Your task to perform on an android device: toggle data saver in the chrome app Image 0: 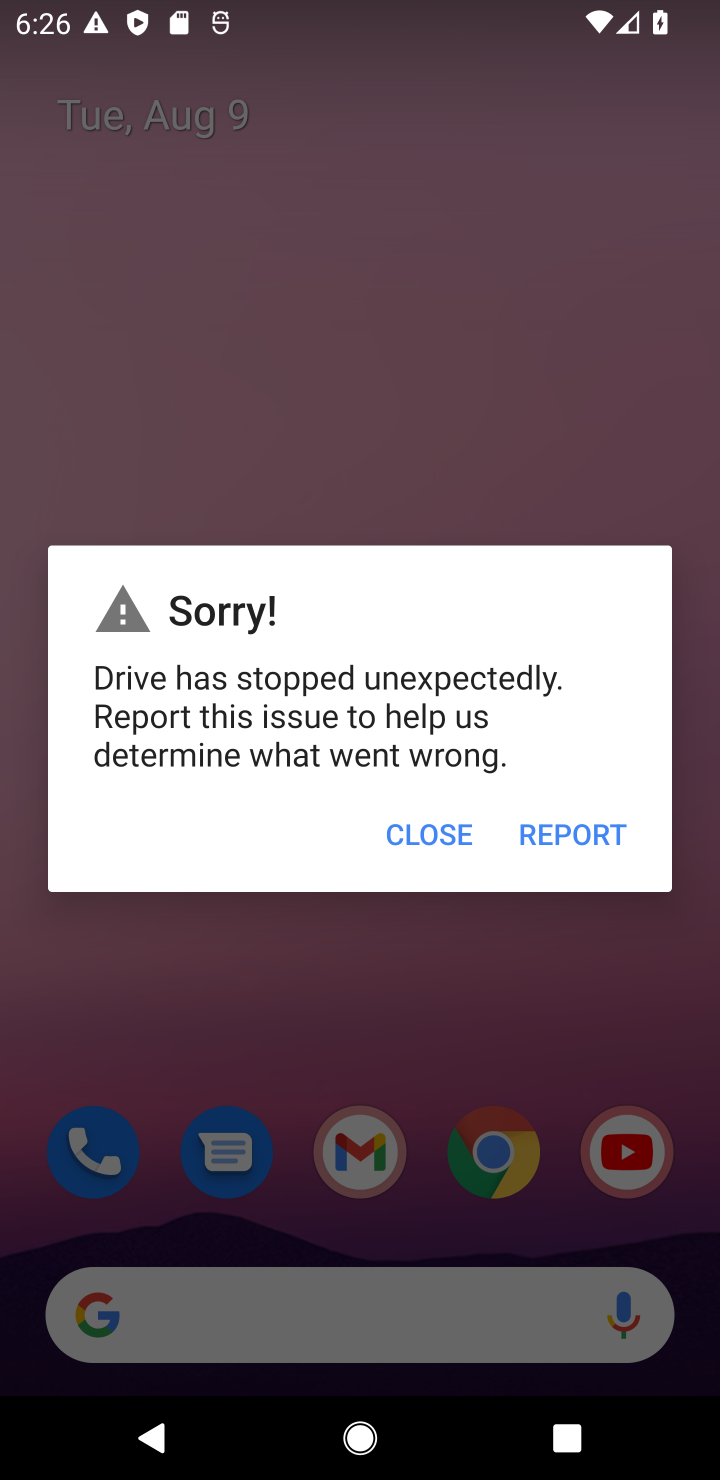
Step 0: click (435, 820)
Your task to perform on an android device: toggle data saver in the chrome app Image 1: 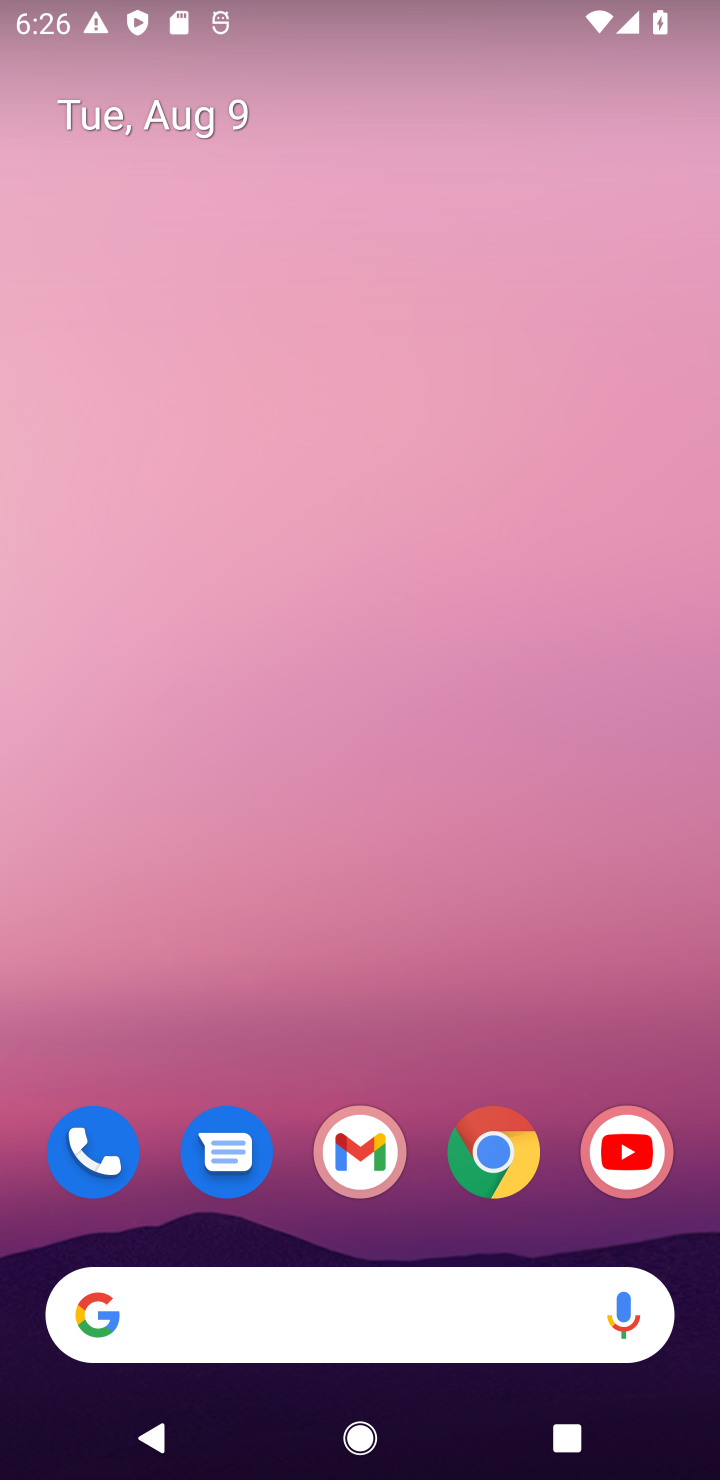
Step 1: click (501, 1140)
Your task to perform on an android device: toggle data saver in the chrome app Image 2: 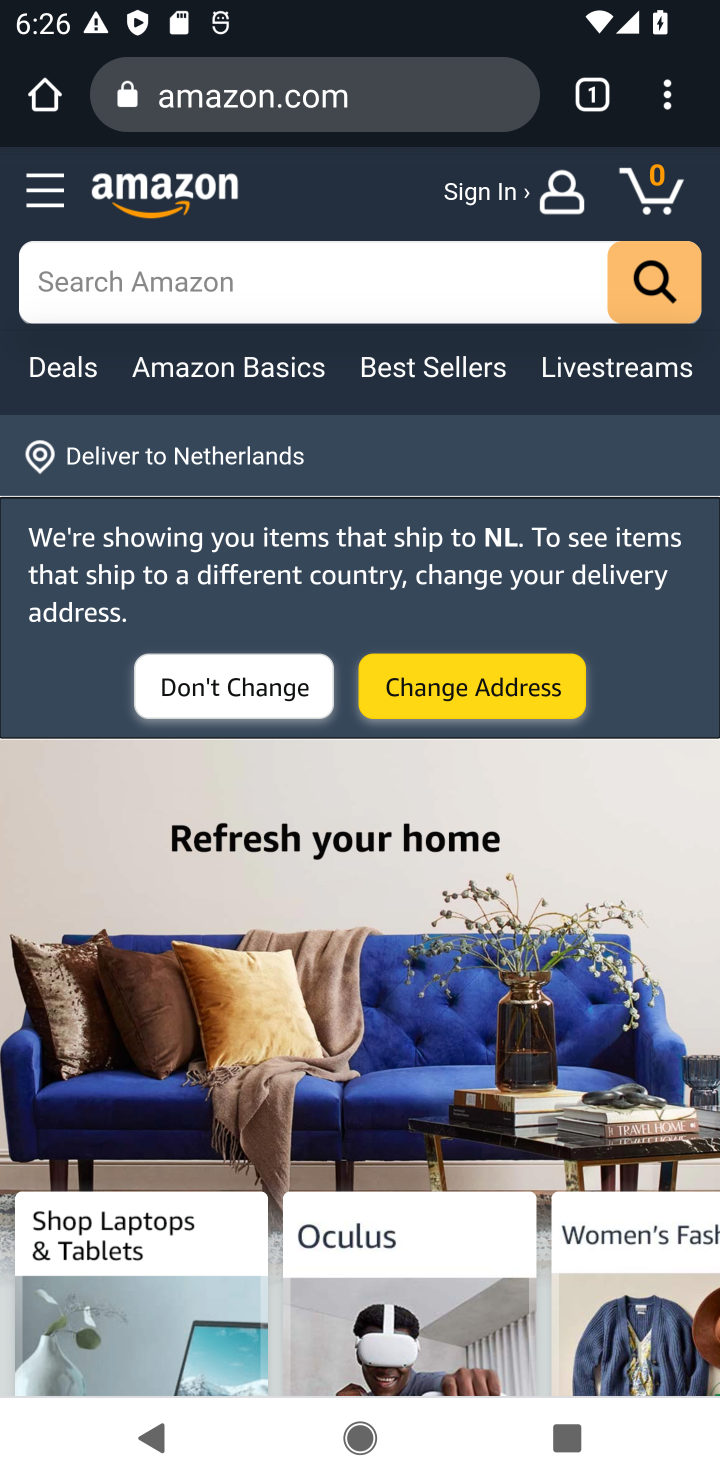
Step 2: drag from (679, 82) to (405, 1238)
Your task to perform on an android device: toggle data saver in the chrome app Image 3: 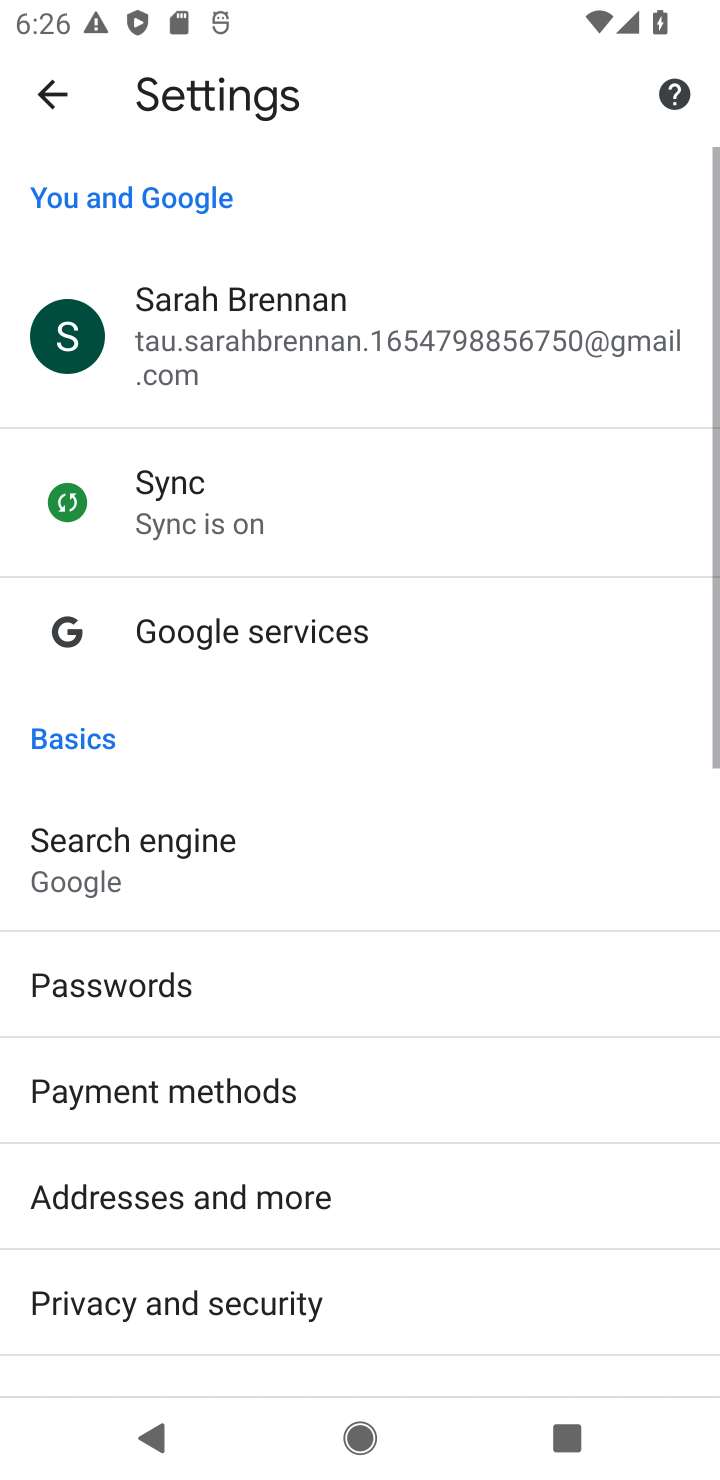
Step 3: drag from (327, 1250) to (648, 50)
Your task to perform on an android device: toggle data saver in the chrome app Image 4: 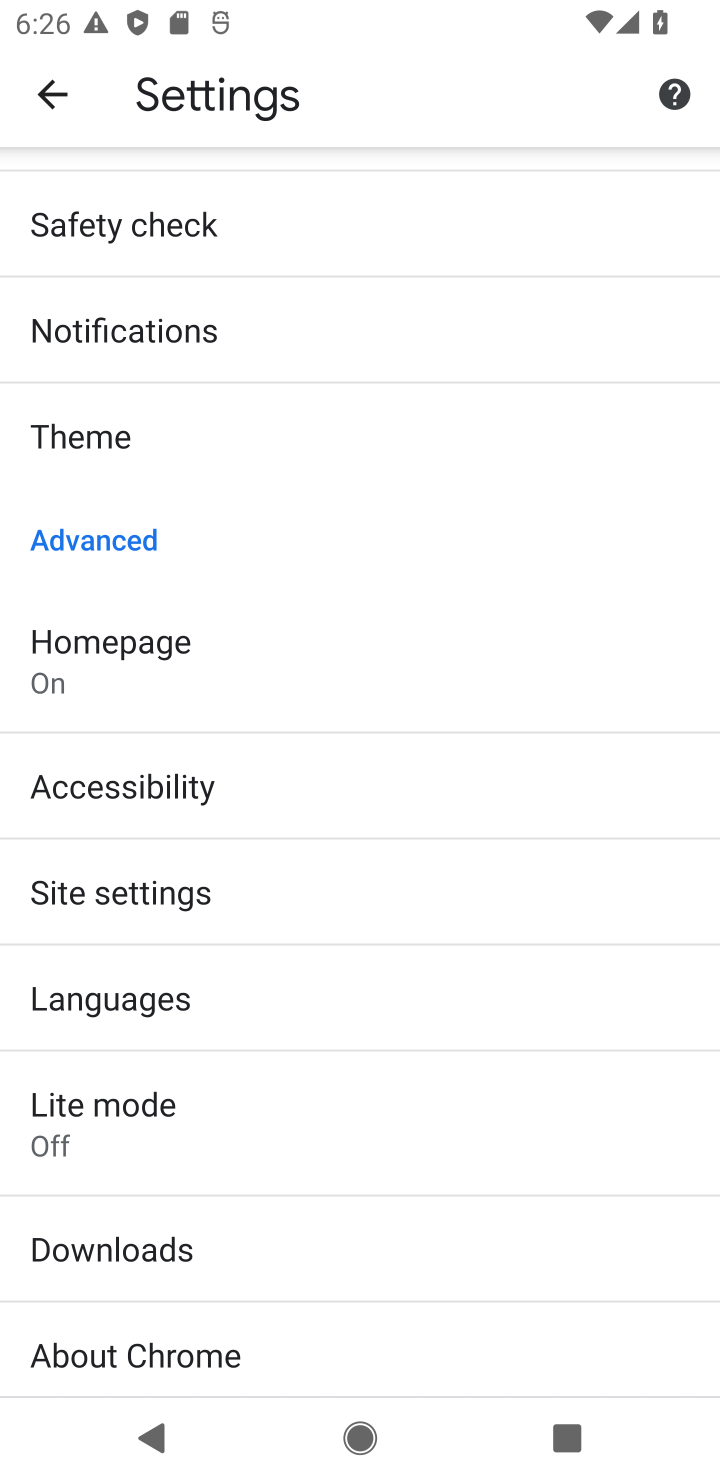
Step 4: click (155, 1094)
Your task to perform on an android device: toggle data saver in the chrome app Image 5: 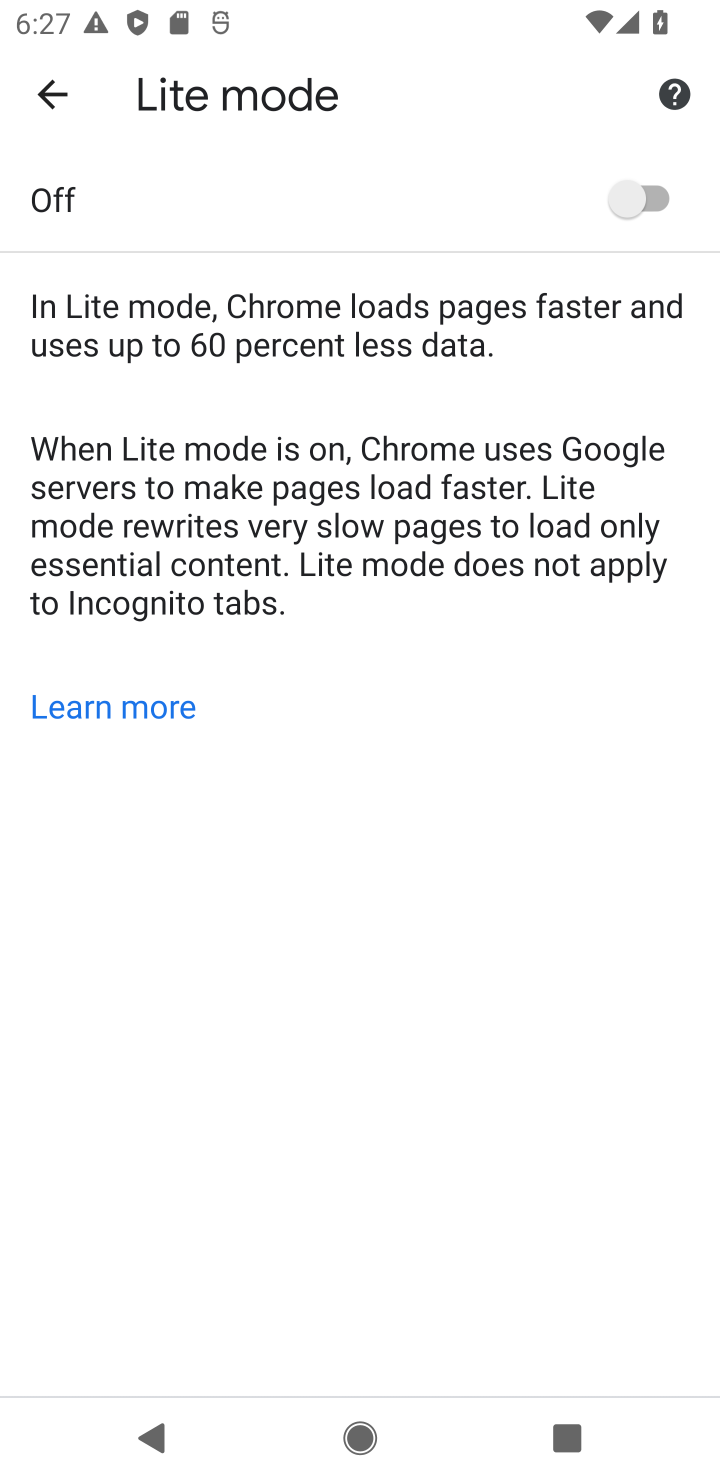
Step 5: click (648, 185)
Your task to perform on an android device: toggle data saver in the chrome app Image 6: 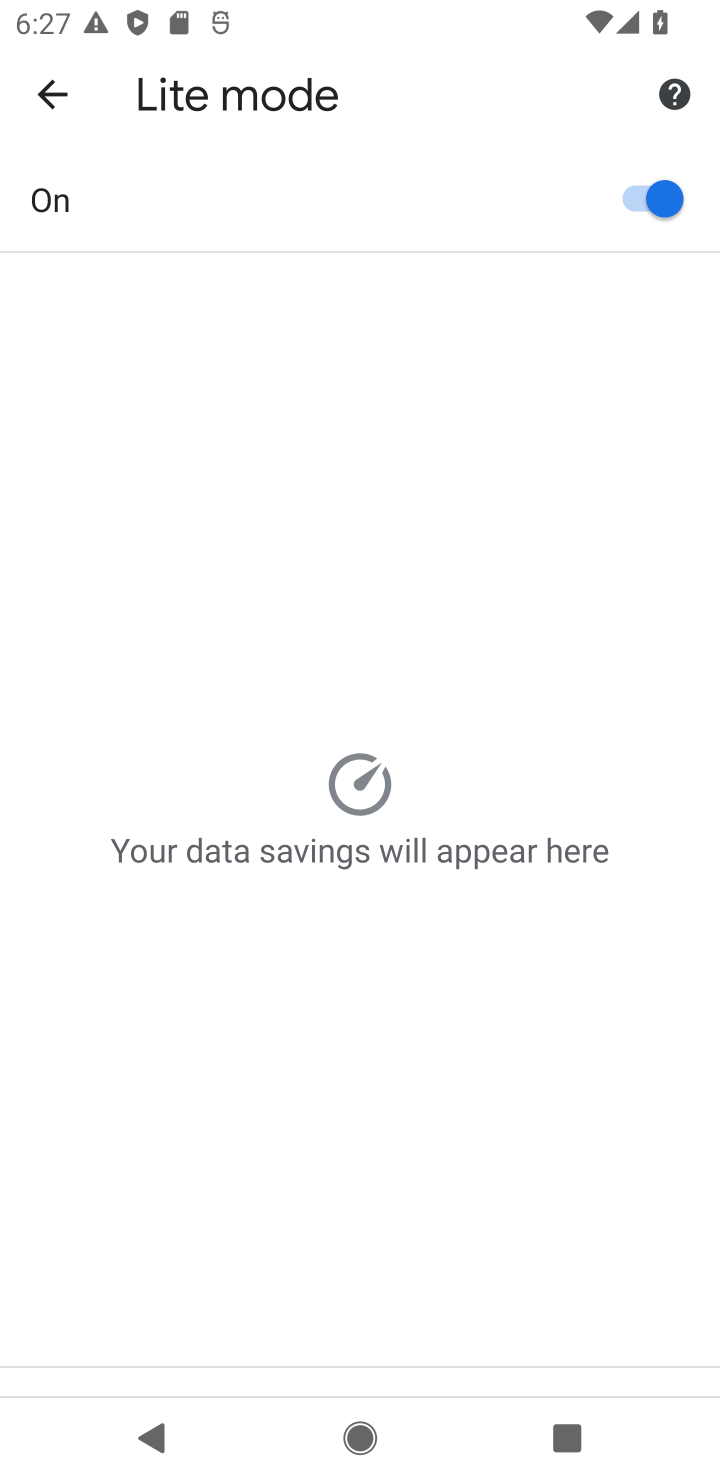
Step 6: task complete